Your task to perform on an android device: allow cookies in the chrome app Image 0: 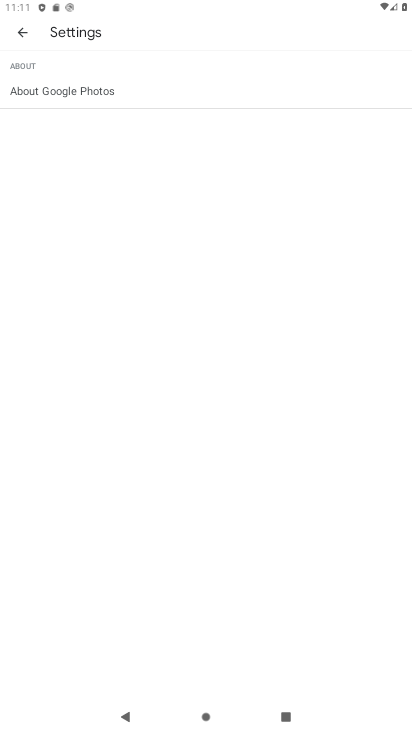
Step 0: press home button
Your task to perform on an android device: allow cookies in the chrome app Image 1: 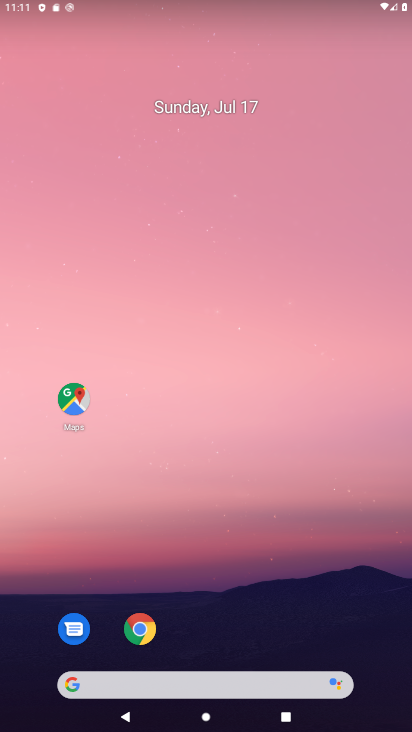
Step 1: drag from (160, 681) to (179, 350)
Your task to perform on an android device: allow cookies in the chrome app Image 2: 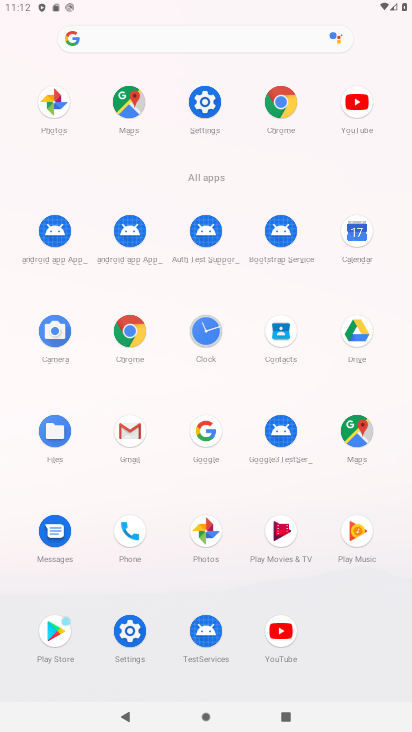
Step 2: click (277, 111)
Your task to perform on an android device: allow cookies in the chrome app Image 3: 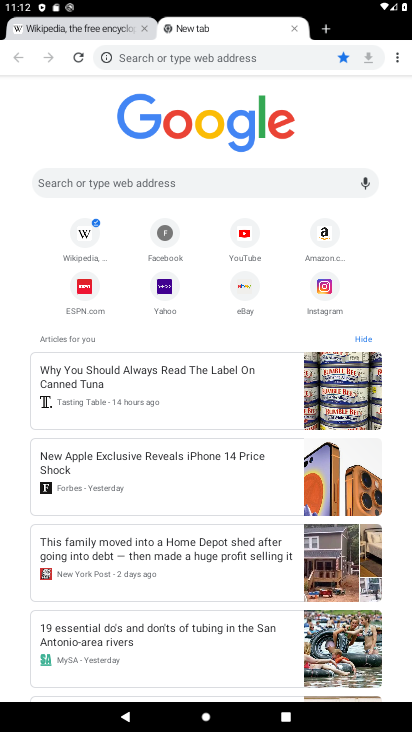
Step 3: click (400, 53)
Your task to perform on an android device: allow cookies in the chrome app Image 4: 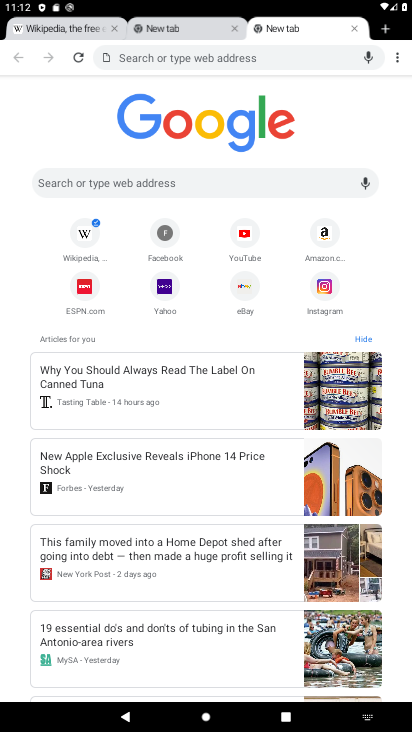
Step 4: click (404, 56)
Your task to perform on an android device: allow cookies in the chrome app Image 5: 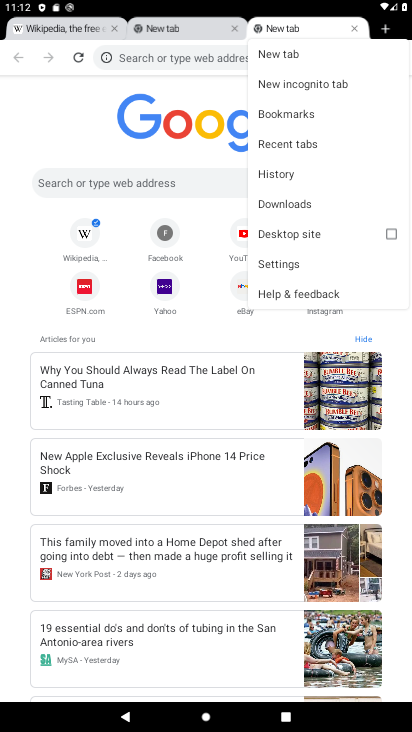
Step 5: click (287, 255)
Your task to perform on an android device: allow cookies in the chrome app Image 6: 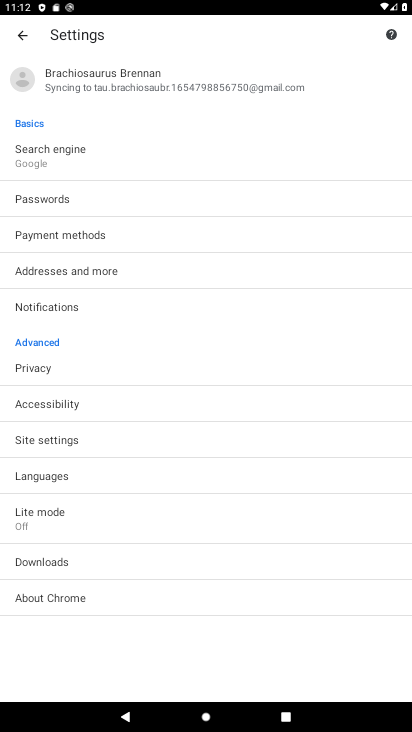
Step 6: click (33, 437)
Your task to perform on an android device: allow cookies in the chrome app Image 7: 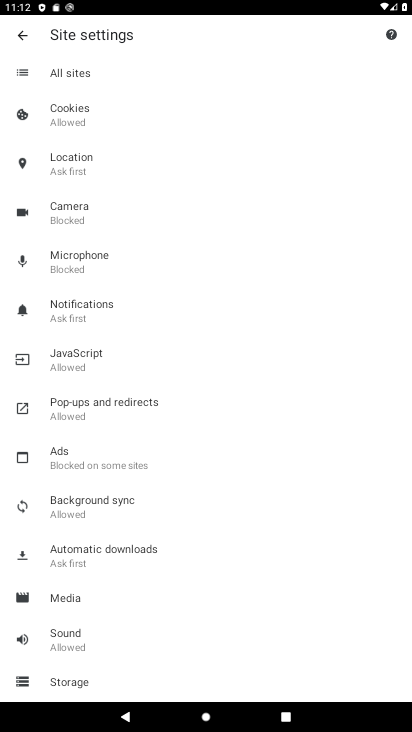
Step 7: click (98, 100)
Your task to perform on an android device: allow cookies in the chrome app Image 8: 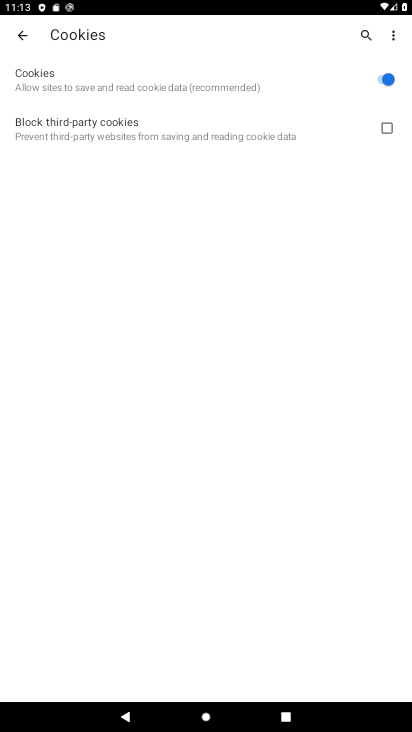
Step 8: task complete